Your task to perform on an android device: delete the emails in spam in the gmail app Image 0: 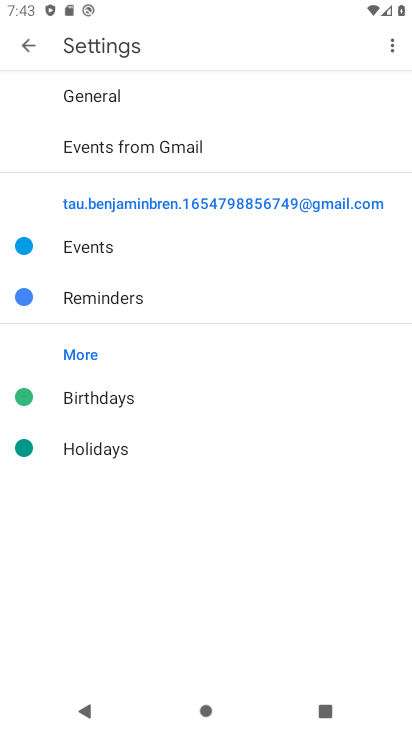
Step 0: press home button
Your task to perform on an android device: delete the emails in spam in the gmail app Image 1: 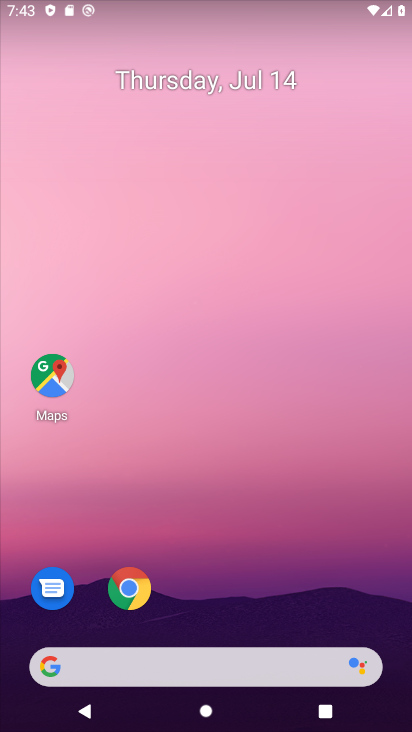
Step 1: drag from (305, 596) to (177, 118)
Your task to perform on an android device: delete the emails in spam in the gmail app Image 2: 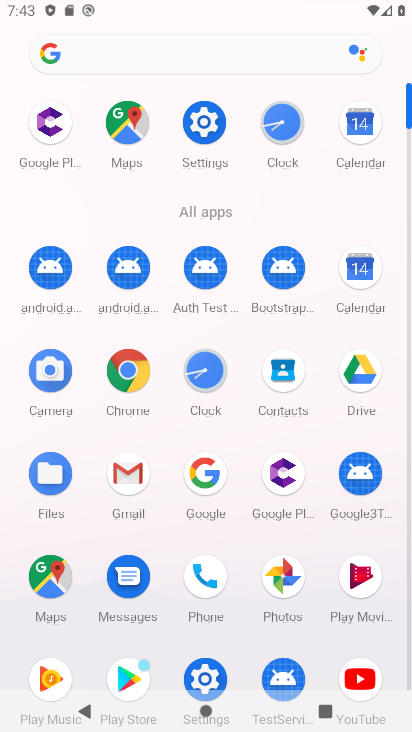
Step 2: click (133, 470)
Your task to perform on an android device: delete the emails in spam in the gmail app Image 3: 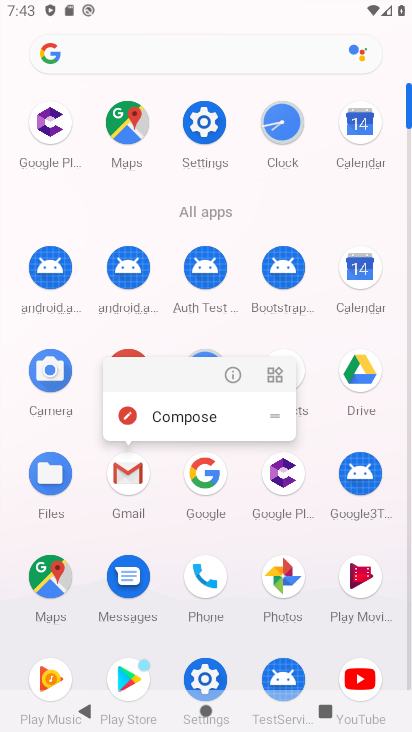
Step 3: click (119, 486)
Your task to perform on an android device: delete the emails in spam in the gmail app Image 4: 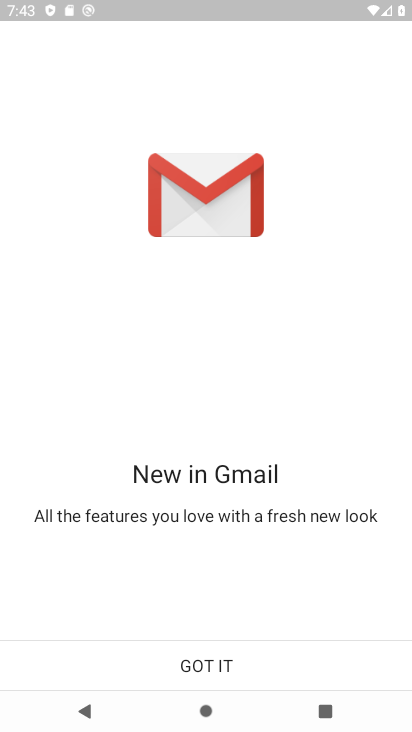
Step 4: click (230, 663)
Your task to perform on an android device: delete the emails in spam in the gmail app Image 5: 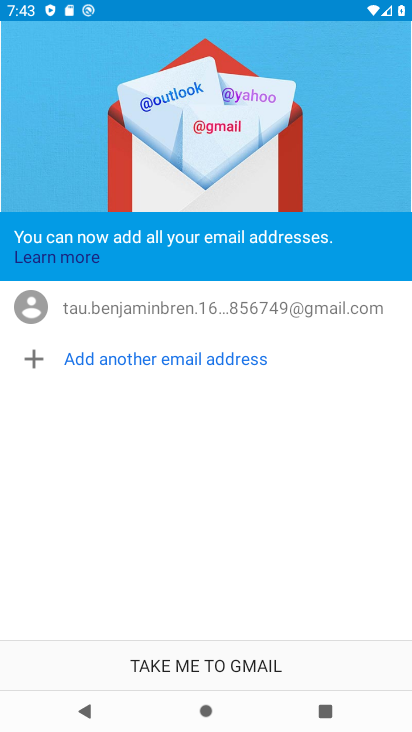
Step 5: click (230, 663)
Your task to perform on an android device: delete the emails in spam in the gmail app Image 6: 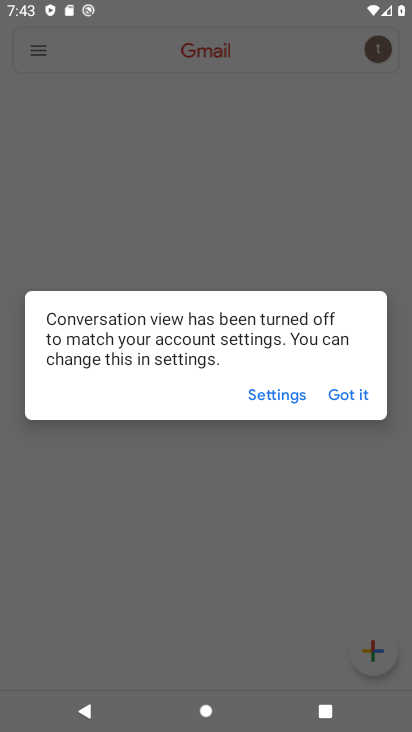
Step 6: click (340, 400)
Your task to perform on an android device: delete the emails in spam in the gmail app Image 7: 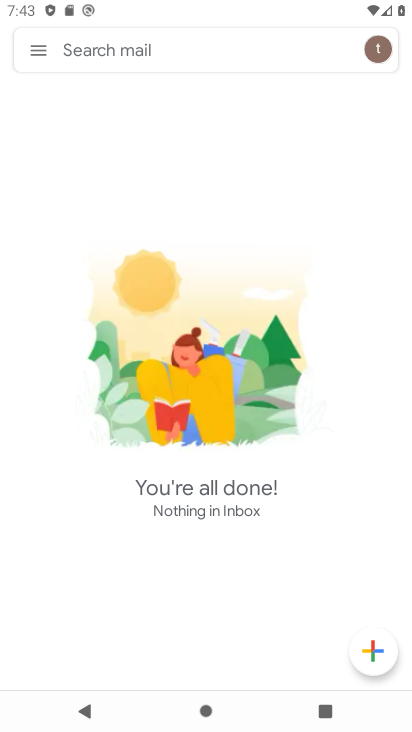
Step 7: click (39, 45)
Your task to perform on an android device: delete the emails in spam in the gmail app Image 8: 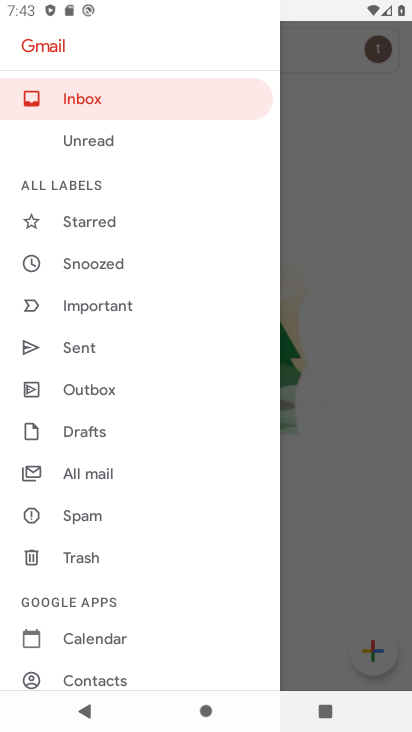
Step 8: click (85, 520)
Your task to perform on an android device: delete the emails in spam in the gmail app Image 9: 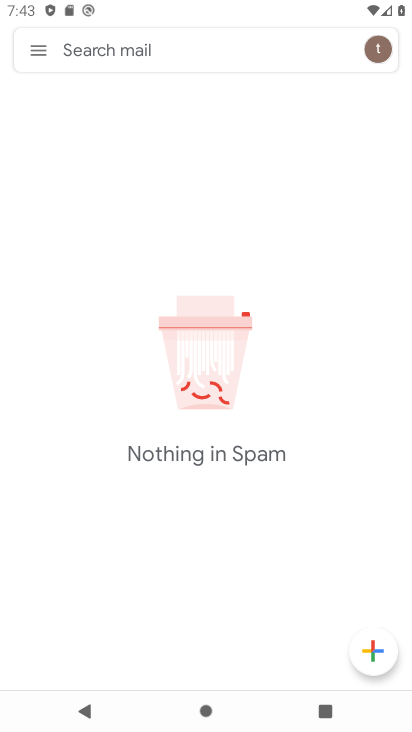
Step 9: task complete